Your task to perform on an android device: visit the assistant section in the google photos Image 0: 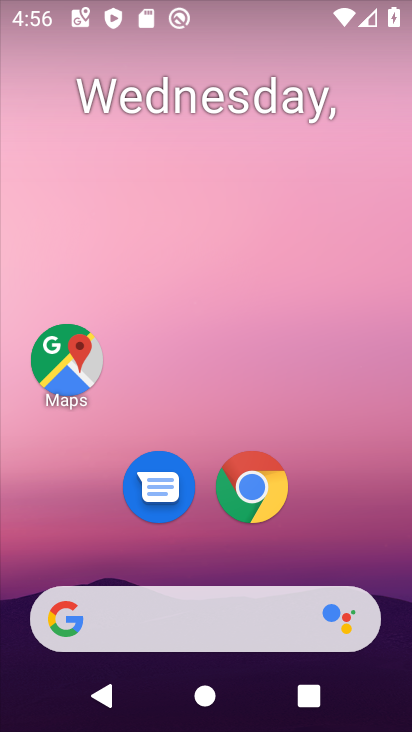
Step 0: drag from (263, 656) to (261, 219)
Your task to perform on an android device: visit the assistant section in the google photos Image 1: 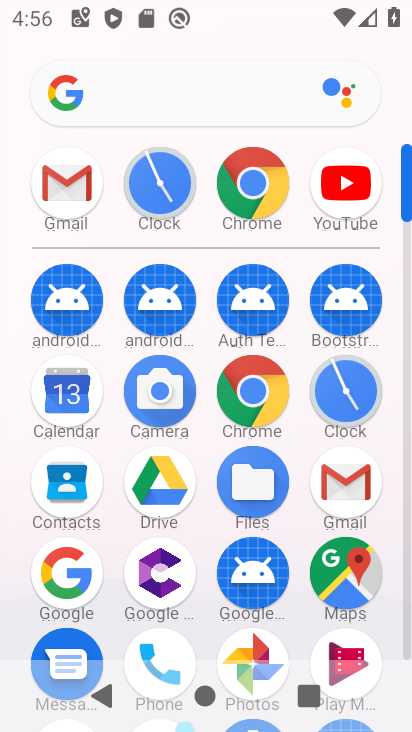
Step 1: drag from (191, 444) to (193, 198)
Your task to perform on an android device: visit the assistant section in the google photos Image 2: 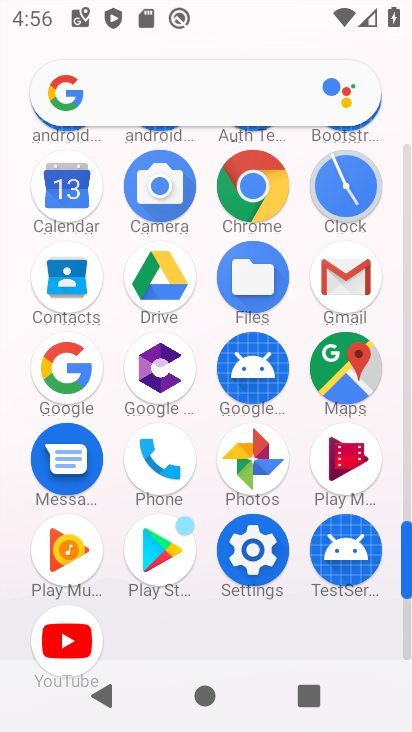
Step 2: click (250, 473)
Your task to perform on an android device: visit the assistant section in the google photos Image 3: 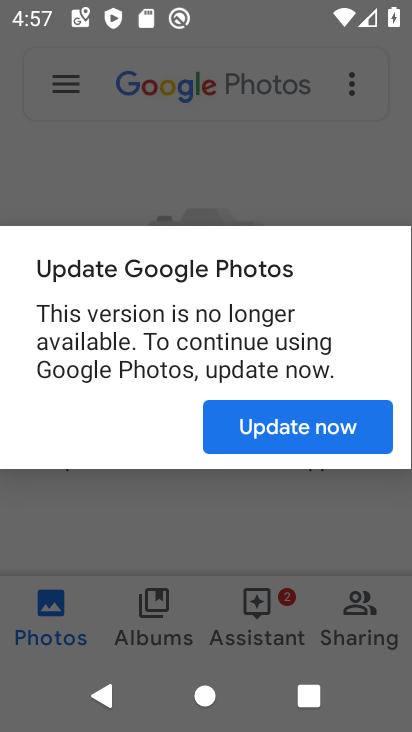
Step 3: task complete